Your task to perform on an android device: see tabs open on other devices in the chrome app Image 0: 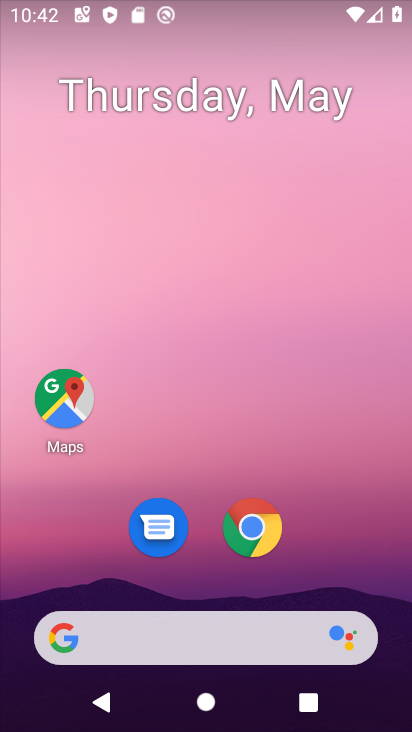
Step 0: click (258, 521)
Your task to perform on an android device: see tabs open on other devices in the chrome app Image 1: 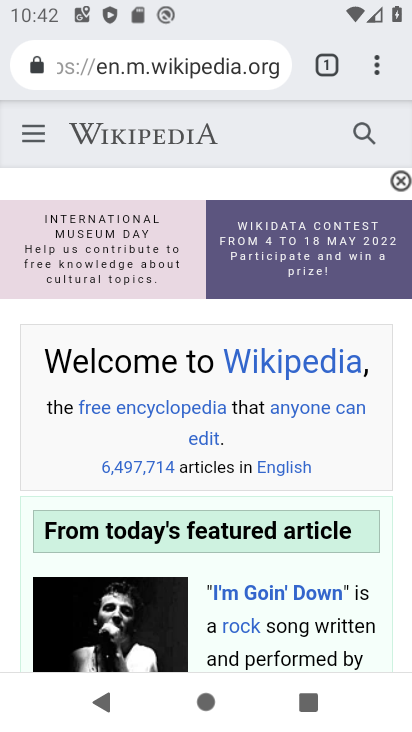
Step 1: task complete